Your task to perform on an android device: Search for pizza restaurants on Maps Image 0: 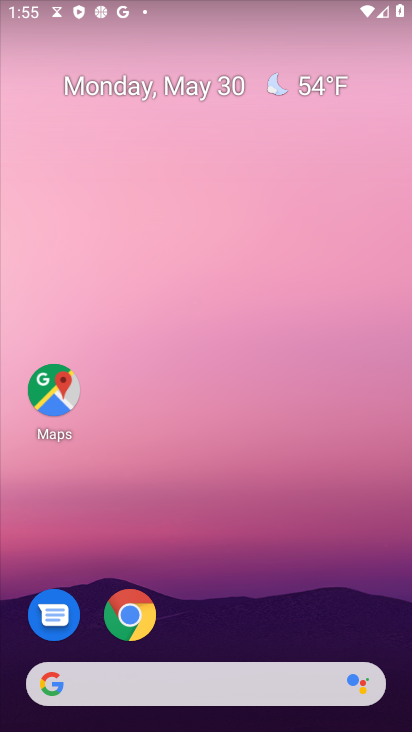
Step 0: drag from (343, 387) to (361, 1)
Your task to perform on an android device: Search for pizza restaurants on Maps Image 1: 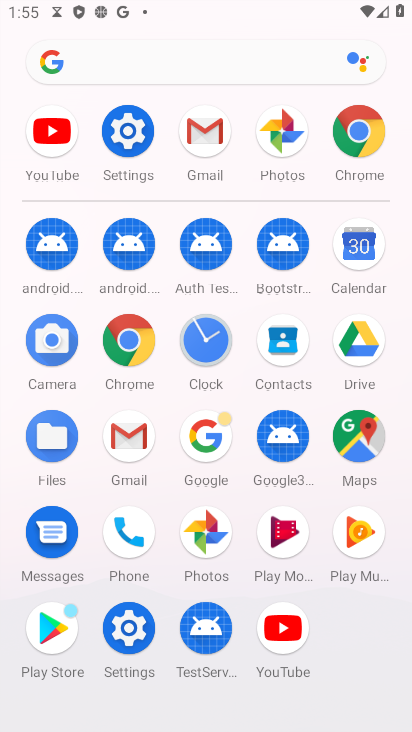
Step 1: click (349, 438)
Your task to perform on an android device: Search for pizza restaurants on Maps Image 2: 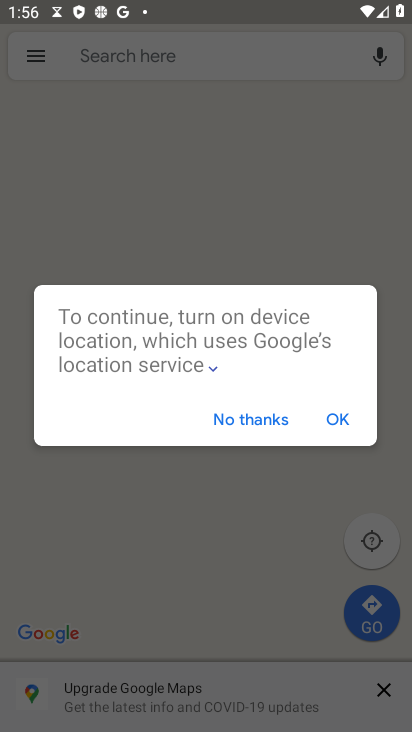
Step 2: click (251, 416)
Your task to perform on an android device: Search for pizza restaurants on Maps Image 3: 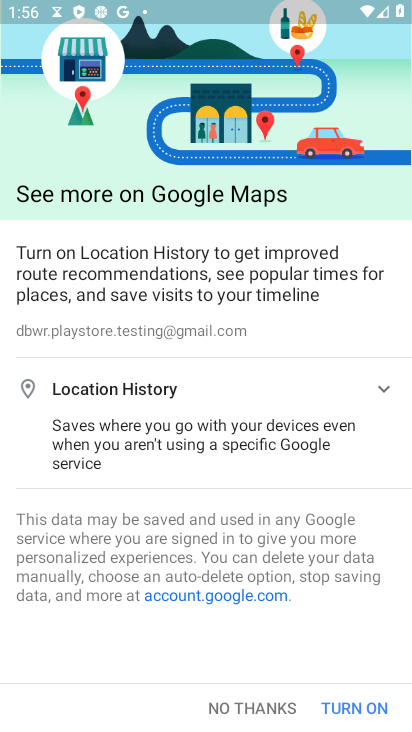
Step 3: click (257, 715)
Your task to perform on an android device: Search for pizza restaurants on Maps Image 4: 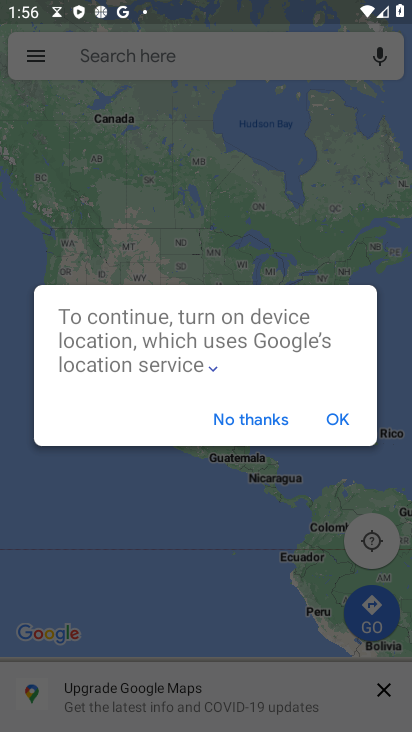
Step 4: click (241, 422)
Your task to perform on an android device: Search for pizza restaurants on Maps Image 5: 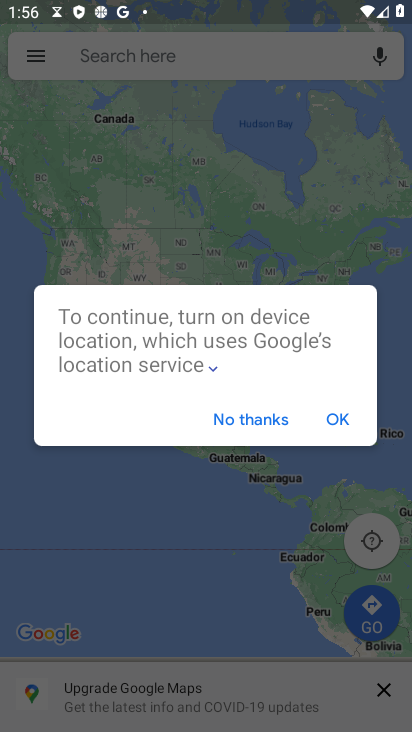
Step 5: click (182, 47)
Your task to perform on an android device: Search for pizza restaurants on Maps Image 6: 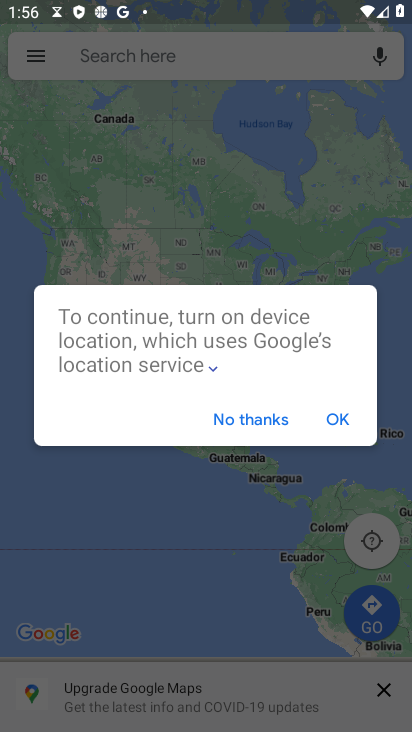
Step 6: click (244, 435)
Your task to perform on an android device: Search for pizza restaurants on Maps Image 7: 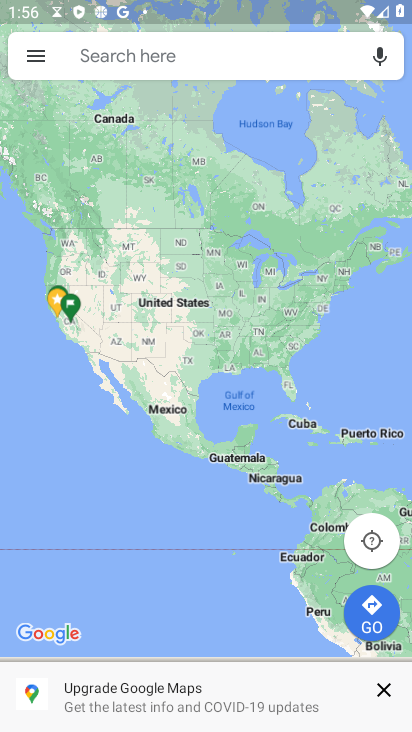
Step 7: click (167, 47)
Your task to perform on an android device: Search for pizza restaurants on Maps Image 8: 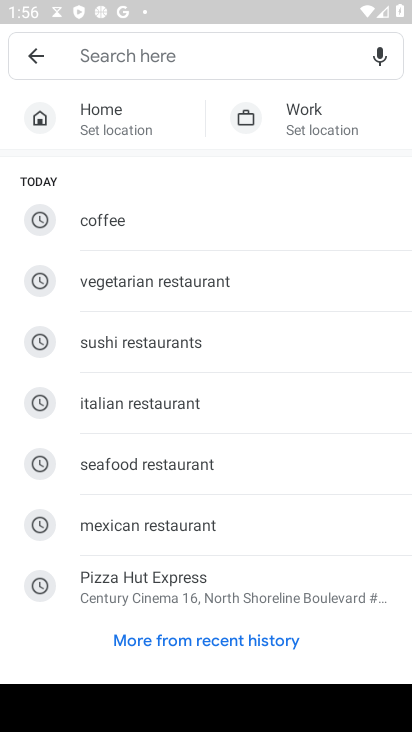
Step 8: click (167, 585)
Your task to perform on an android device: Search for pizza restaurants on Maps Image 9: 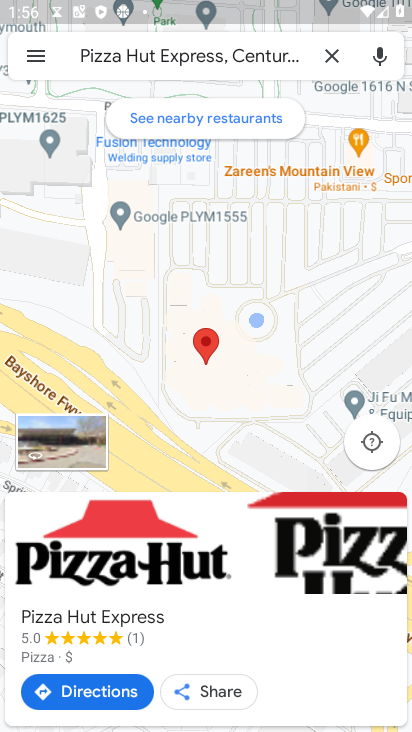
Step 9: task complete